Your task to perform on an android device: Search for vegetarian restaurants on Maps Image 0: 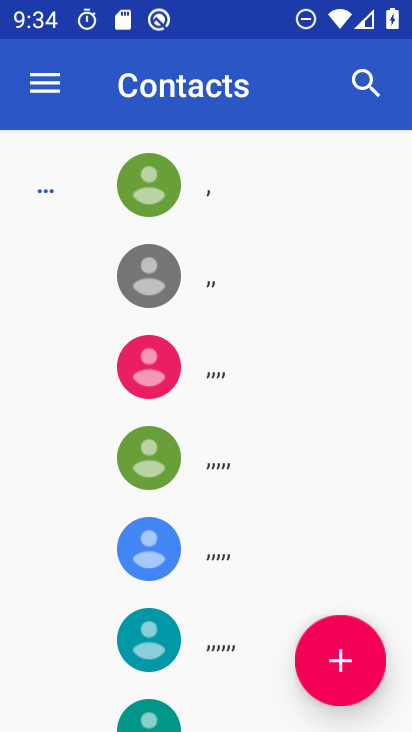
Step 0: press home button
Your task to perform on an android device: Search for vegetarian restaurants on Maps Image 1: 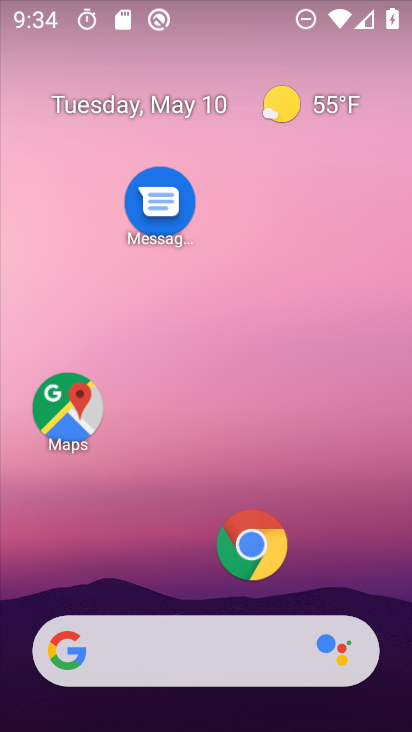
Step 1: click (75, 431)
Your task to perform on an android device: Search for vegetarian restaurants on Maps Image 2: 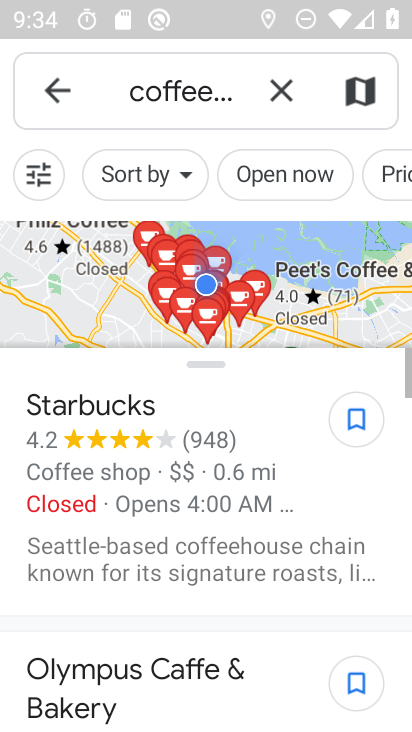
Step 2: click (268, 90)
Your task to perform on an android device: Search for vegetarian restaurants on Maps Image 3: 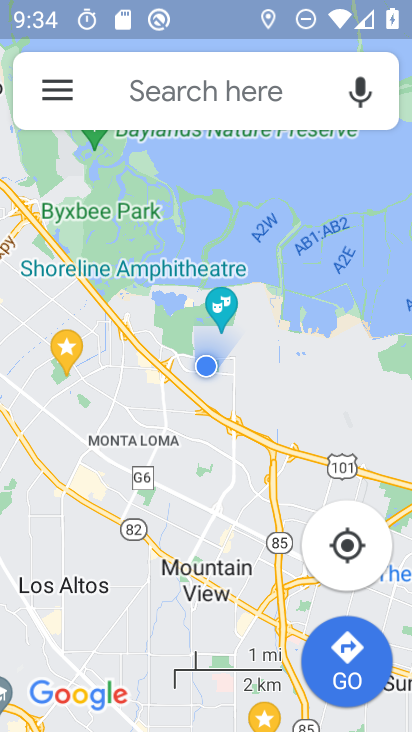
Step 3: click (218, 89)
Your task to perform on an android device: Search for vegetarian restaurants on Maps Image 4: 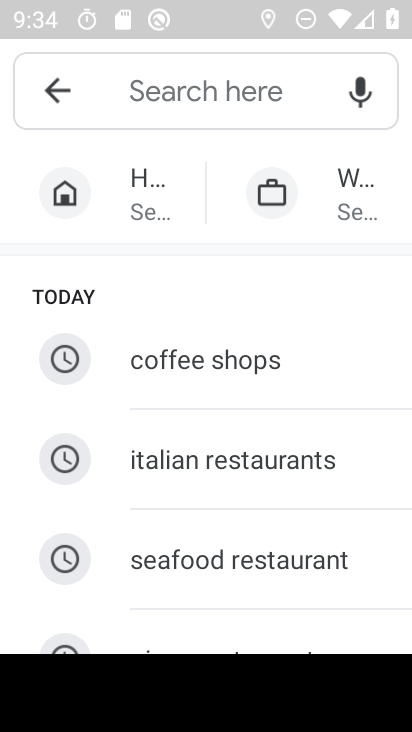
Step 4: type "vegetarian restaurants"
Your task to perform on an android device: Search for vegetarian restaurants on Maps Image 5: 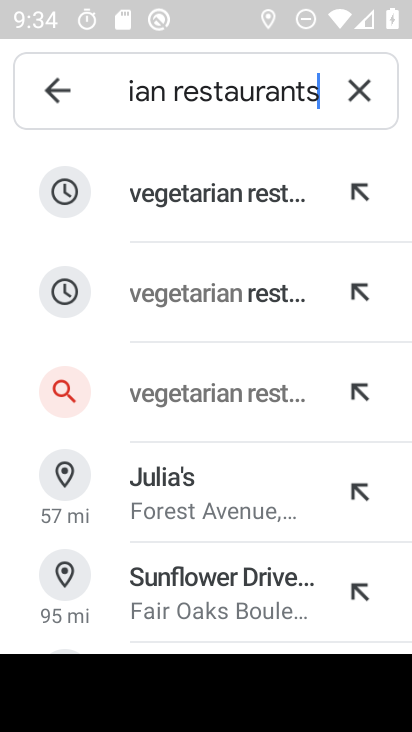
Step 5: click (212, 185)
Your task to perform on an android device: Search for vegetarian restaurants on Maps Image 6: 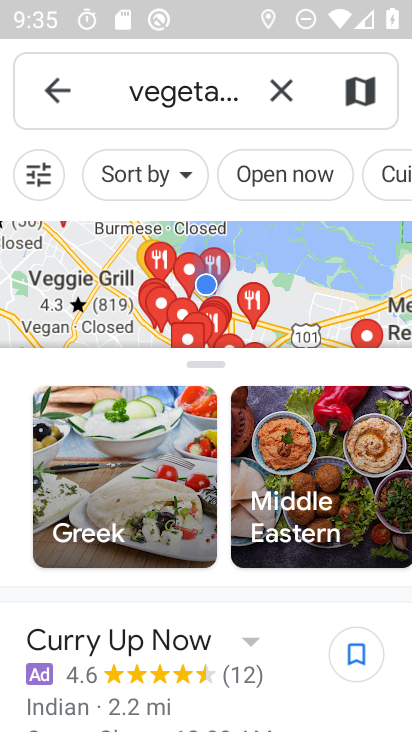
Step 6: task complete